Your task to perform on an android device: check android version Image 0: 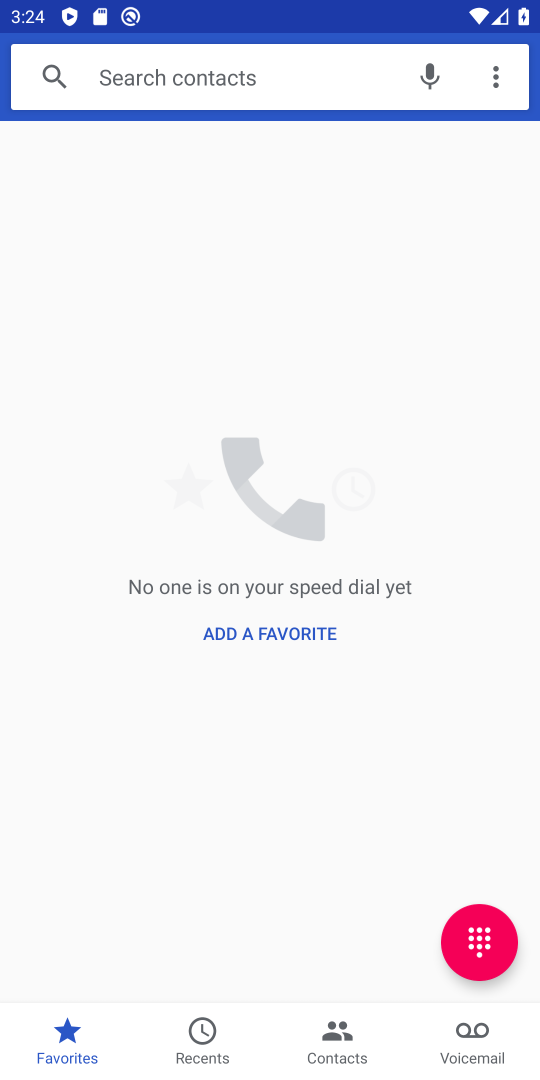
Step 0: press home button
Your task to perform on an android device: check android version Image 1: 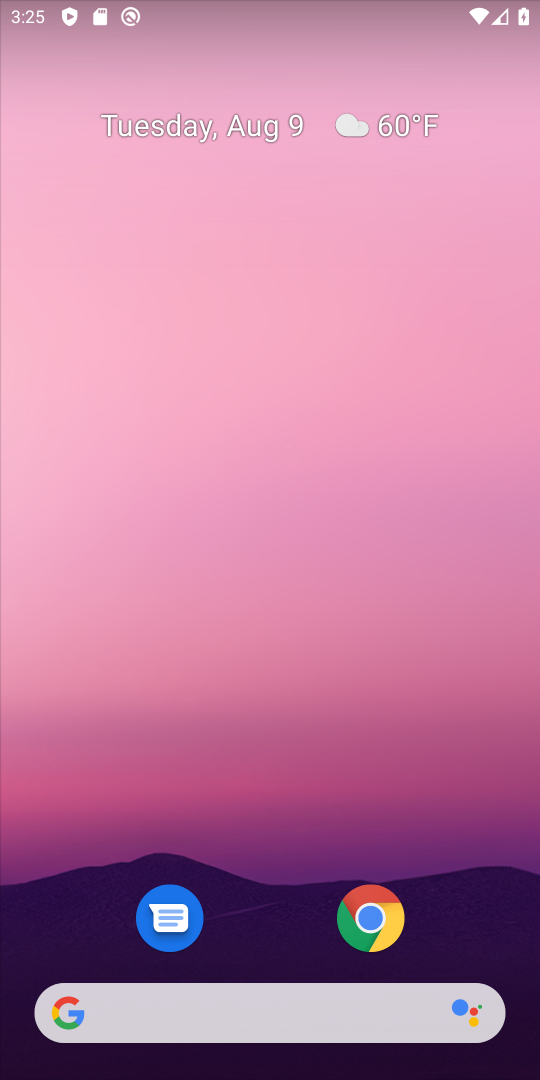
Step 1: drag from (287, 1001) to (278, 19)
Your task to perform on an android device: check android version Image 2: 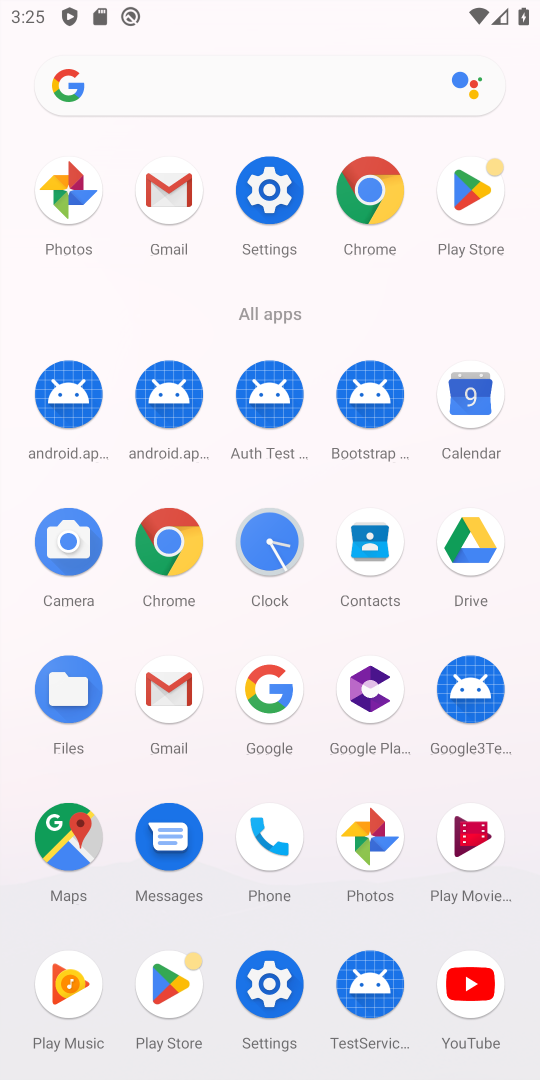
Step 2: click (279, 963)
Your task to perform on an android device: check android version Image 3: 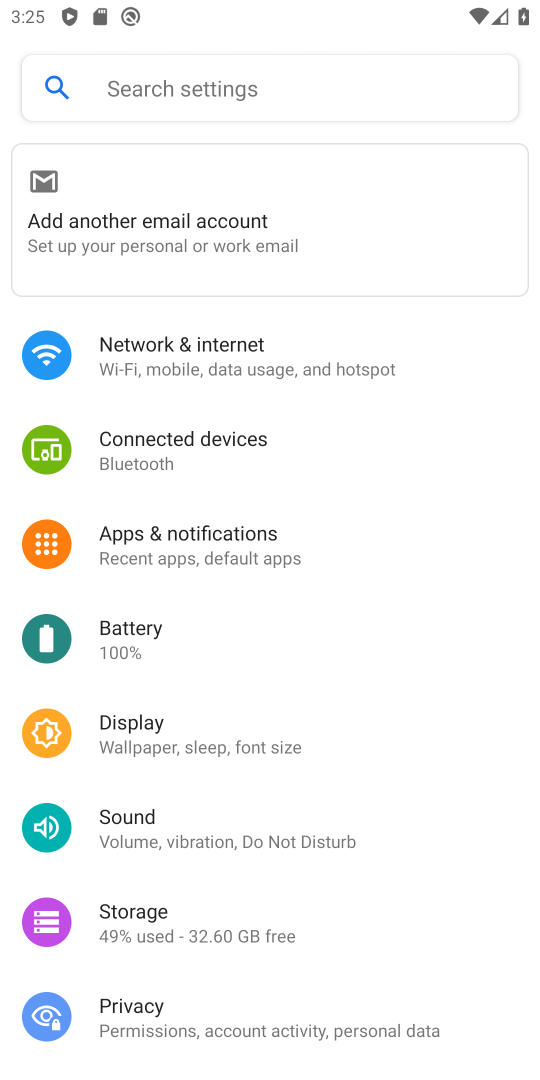
Step 3: drag from (289, 952) to (241, 206)
Your task to perform on an android device: check android version Image 4: 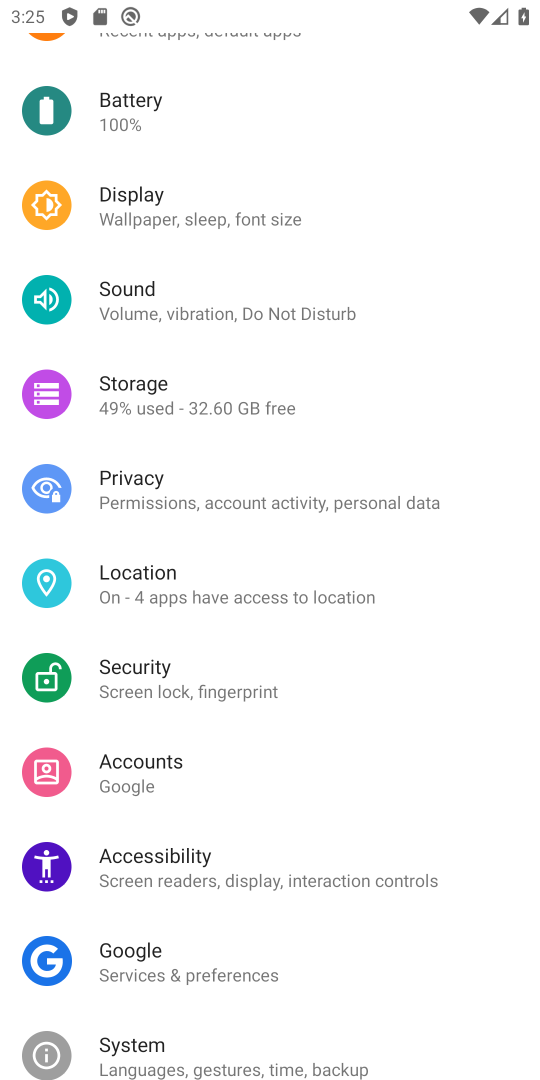
Step 4: drag from (184, 989) to (197, 329)
Your task to perform on an android device: check android version Image 5: 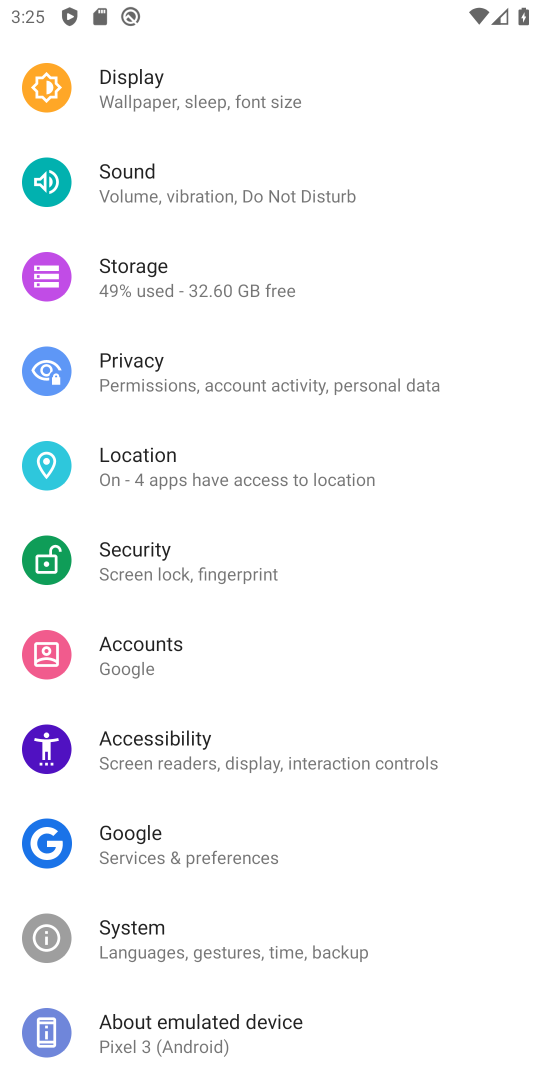
Step 5: click (205, 1026)
Your task to perform on an android device: check android version Image 6: 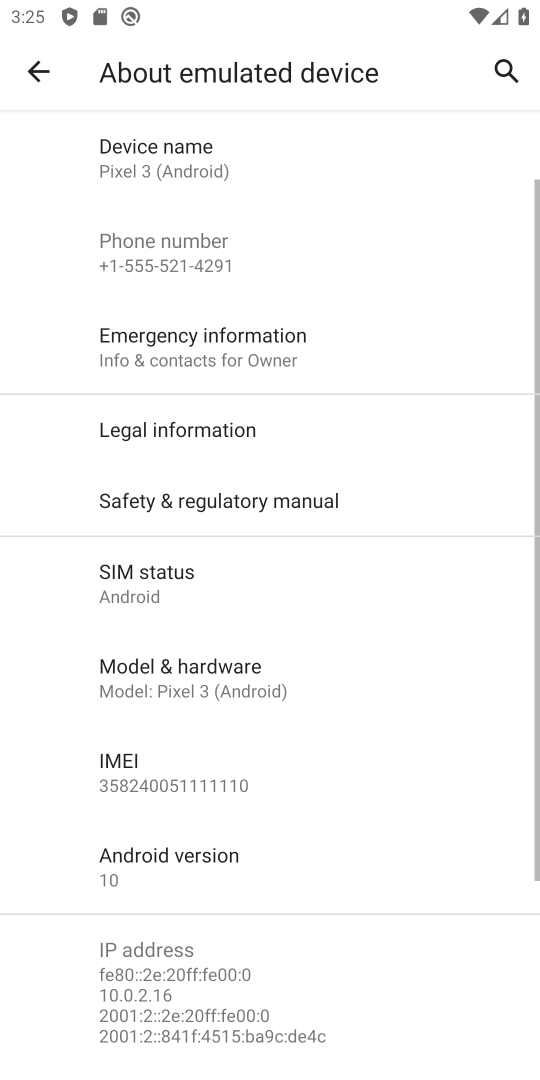
Step 6: click (186, 847)
Your task to perform on an android device: check android version Image 7: 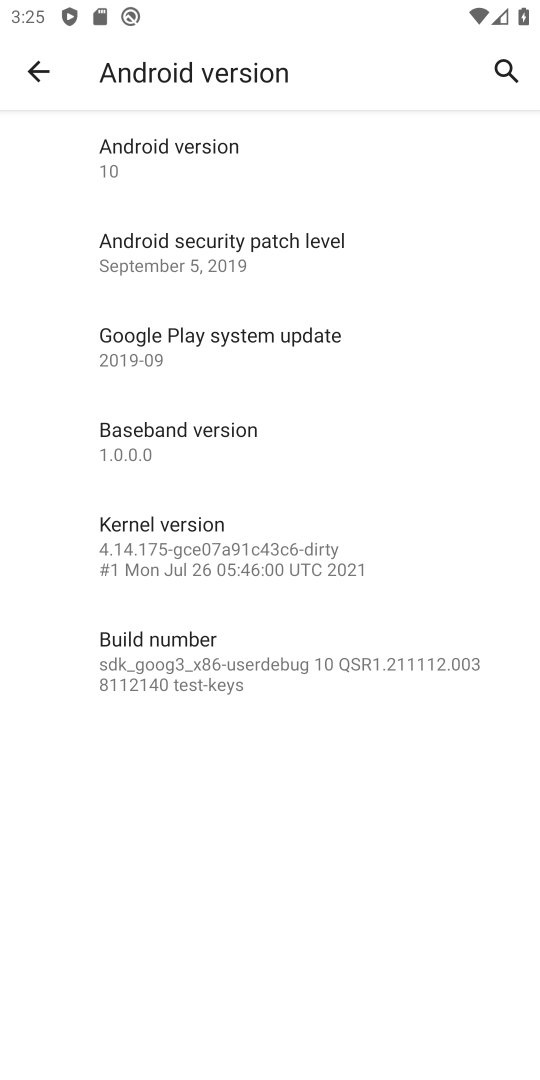
Step 7: click (153, 130)
Your task to perform on an android device: check android version Image 8: 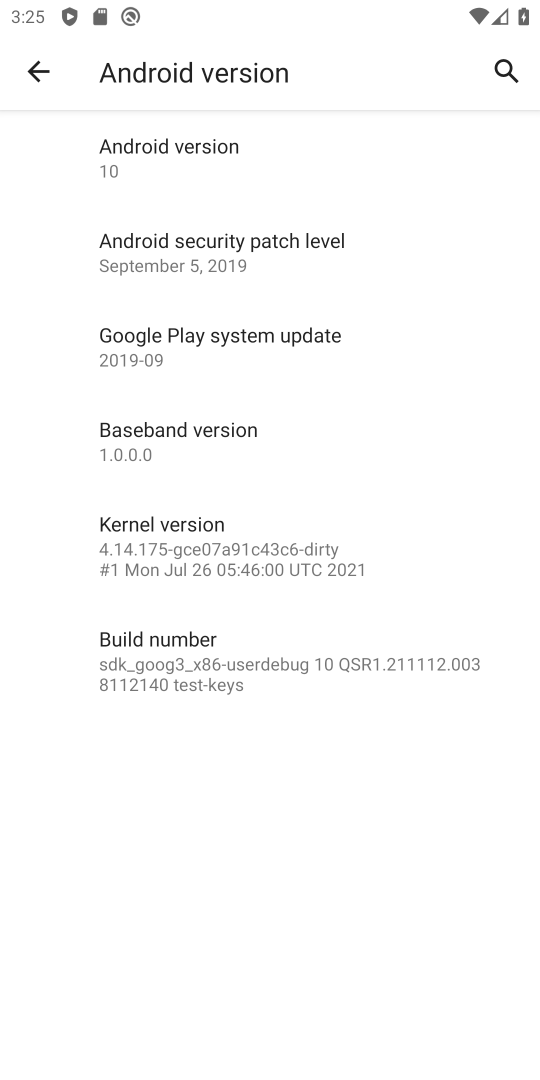
Step 8: task complete